Your task to perform on an android device: Open Google Chrome and click the shortcut for Amazon.com Image 0: 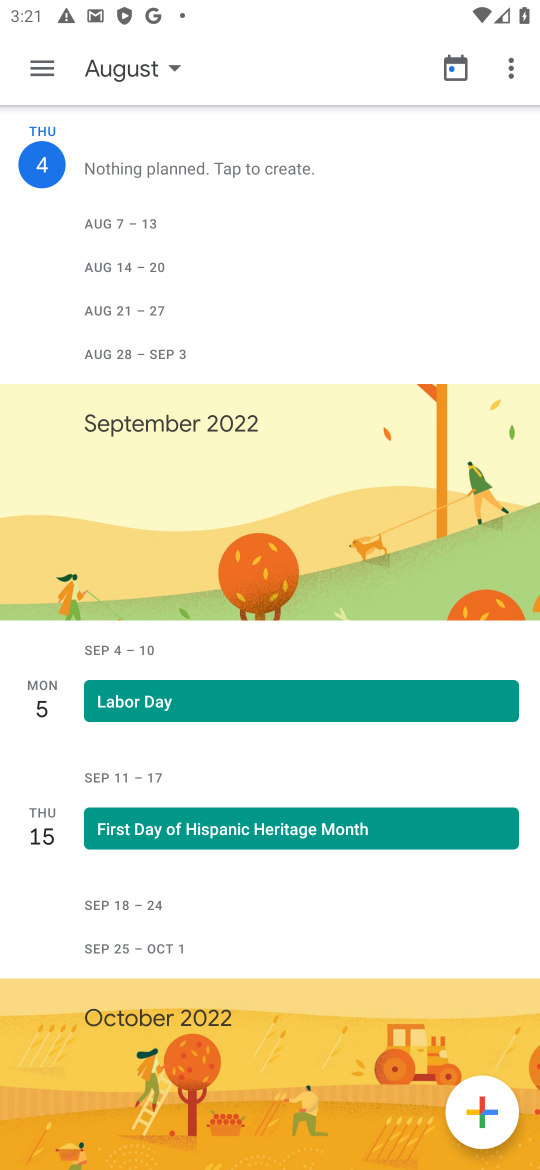
Step 0: press back button
Your task to perform on an android device: Open Google Chrome and click the shortcut for Amazon.com Image 1: 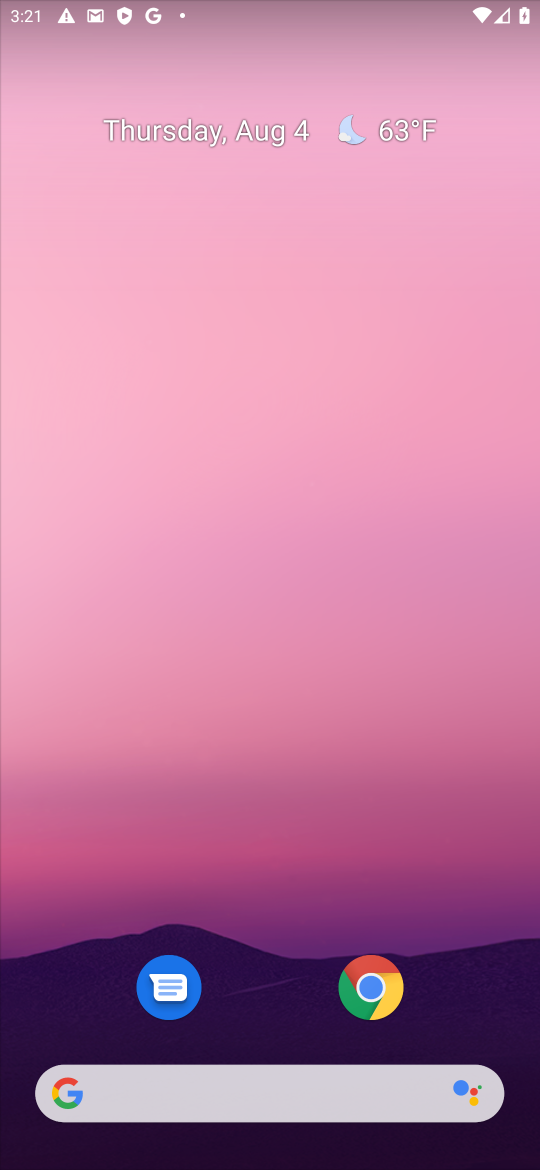
Step 1: click (361, 982)
Your task to perform on an android device: Open Google Chrome and click the shortcut for Amazon.com Image 2: 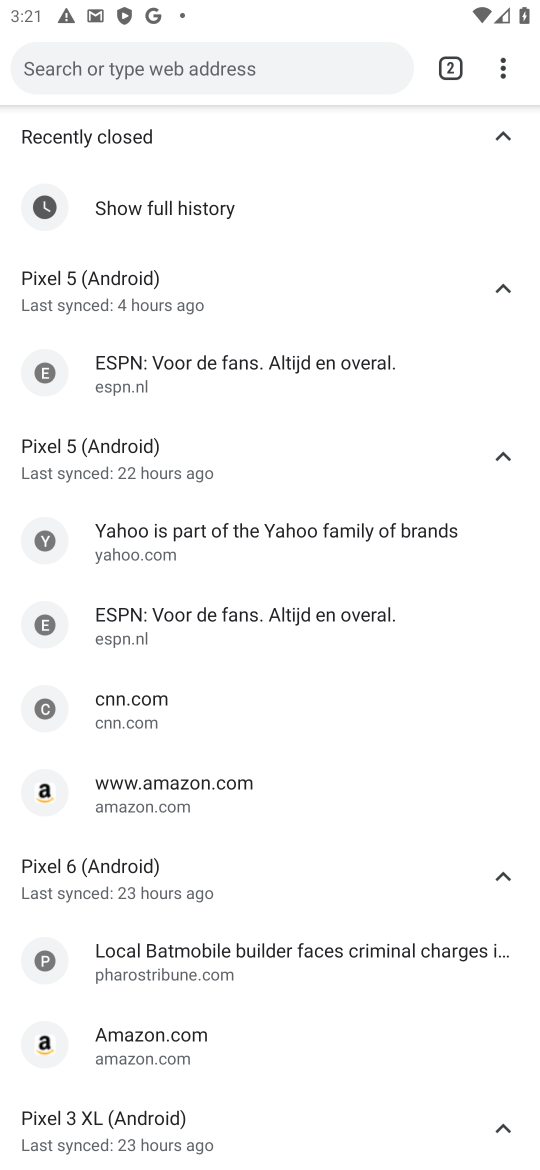
Step 2: press back button
Your task to perform on an android device: Open Google Chrome and click the shortcut for Amazon.com Image 3: 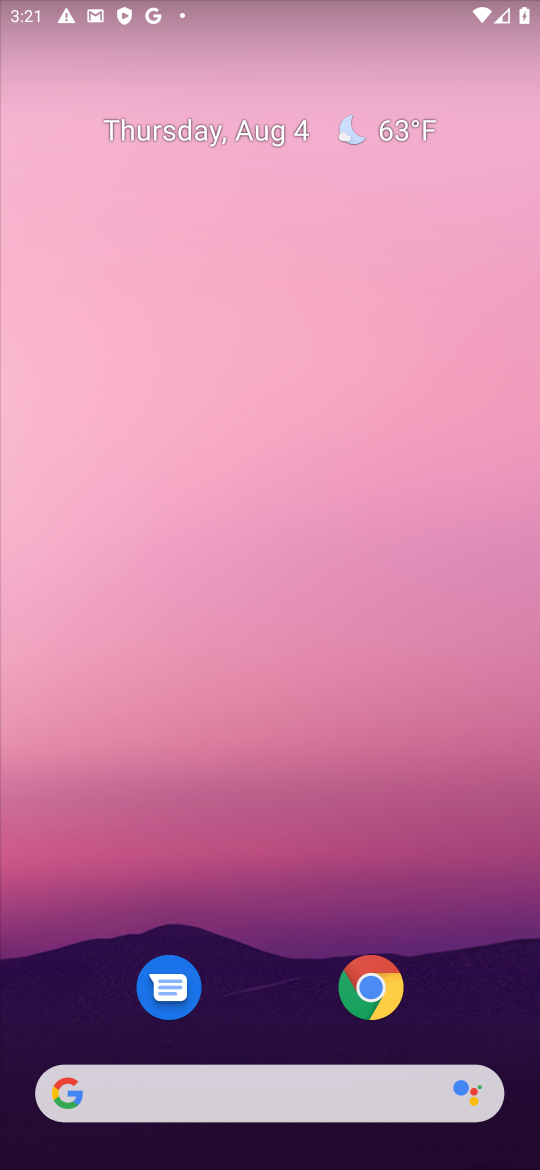
Step 3: click (380, 987)
Your task to perform on an android device: Open Google Chrome and click the shortcut for Amazon.com Image 4: 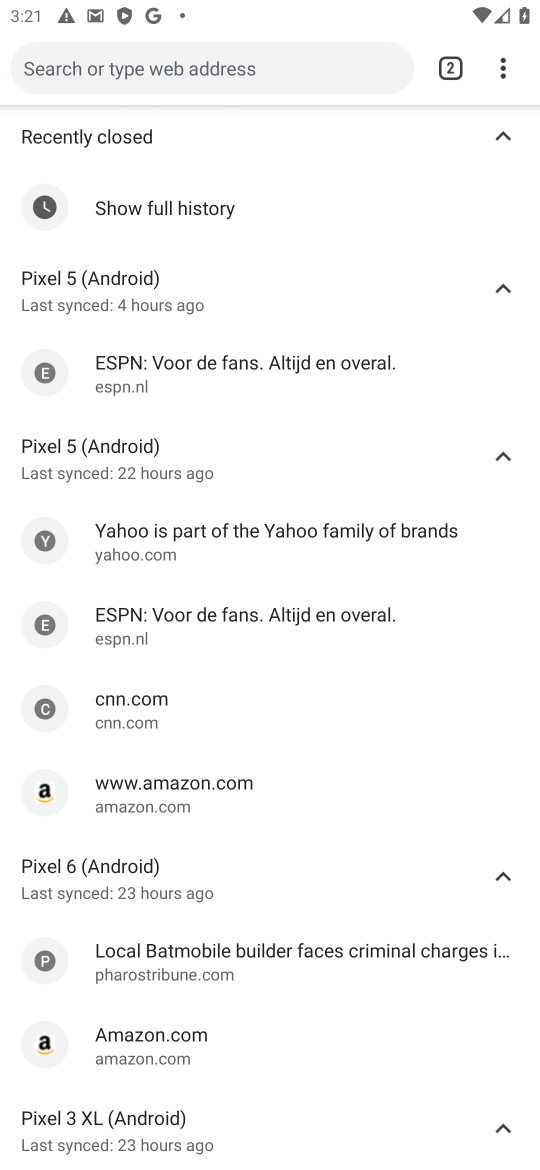
Step 4: click (271, 68)
Your task to perform on an android device: Open Google Chrome and click the shortcut for Amazon.com Image 5: 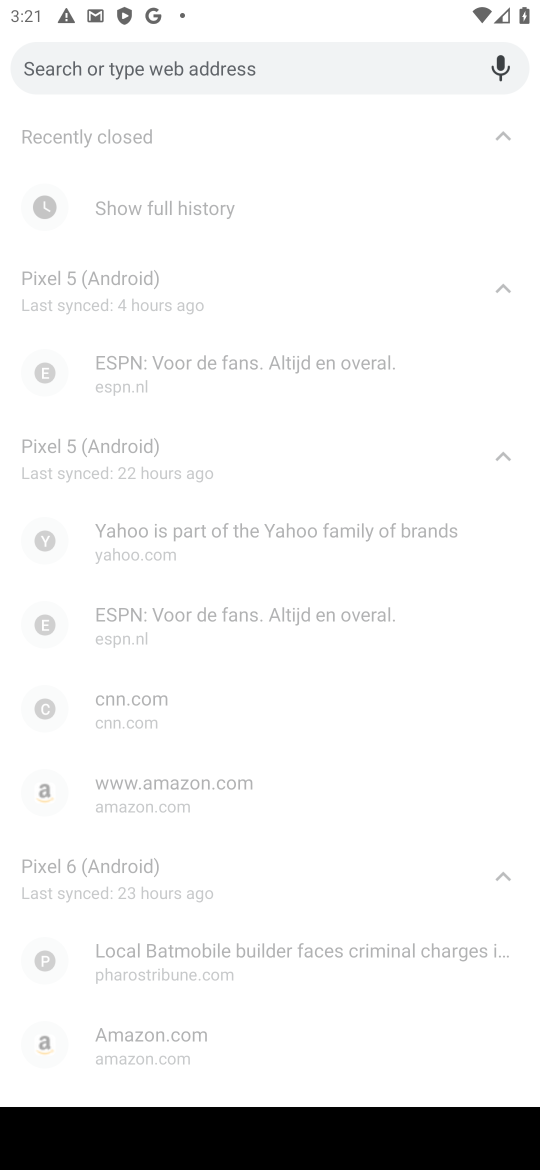
Step 5: type "www.amazon.com"
Your task to perform on an android device: Open Google Chrome and click the shortcut for Amazon.com Image 6: 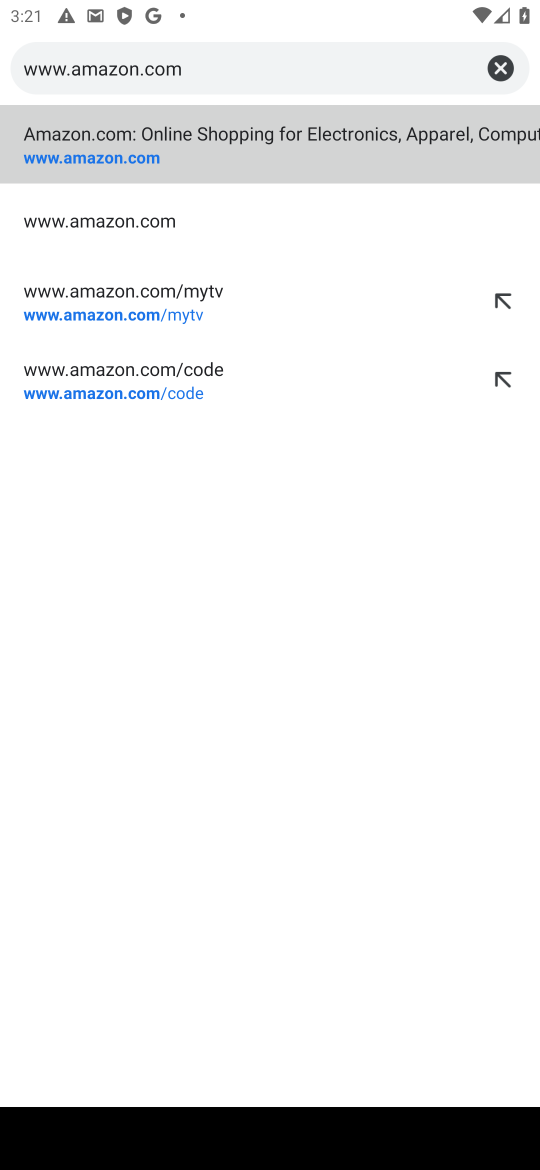
Step 6: click (125, 156)
Your task to perform on an android device: Open Google Chrome and click the shortcut for Amazon.com Image 7: 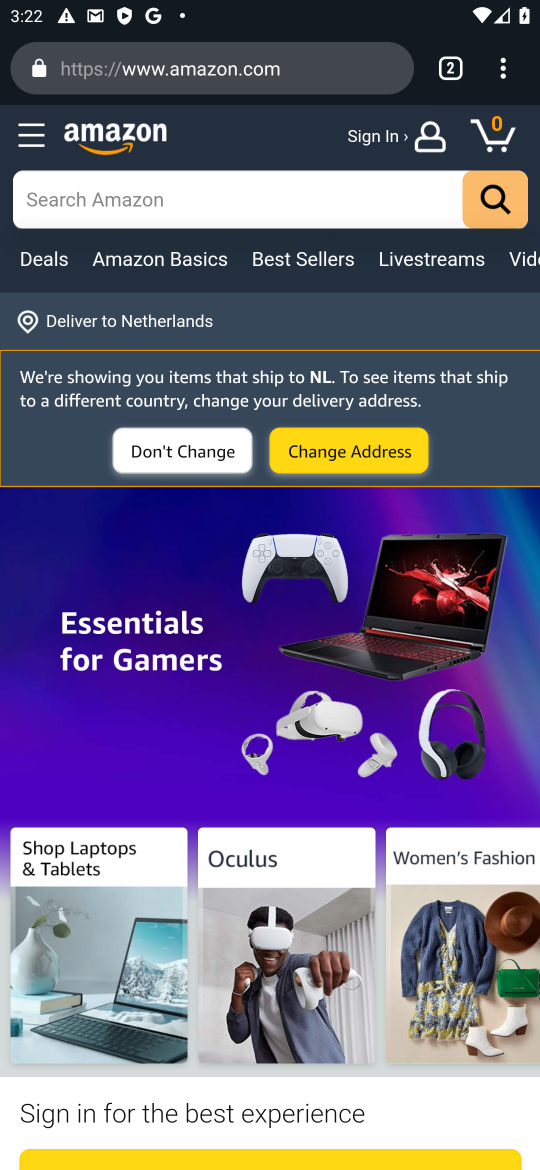
Step 7: task complete